Your task to perform on an android device: open app "PlayWell" Image 0: 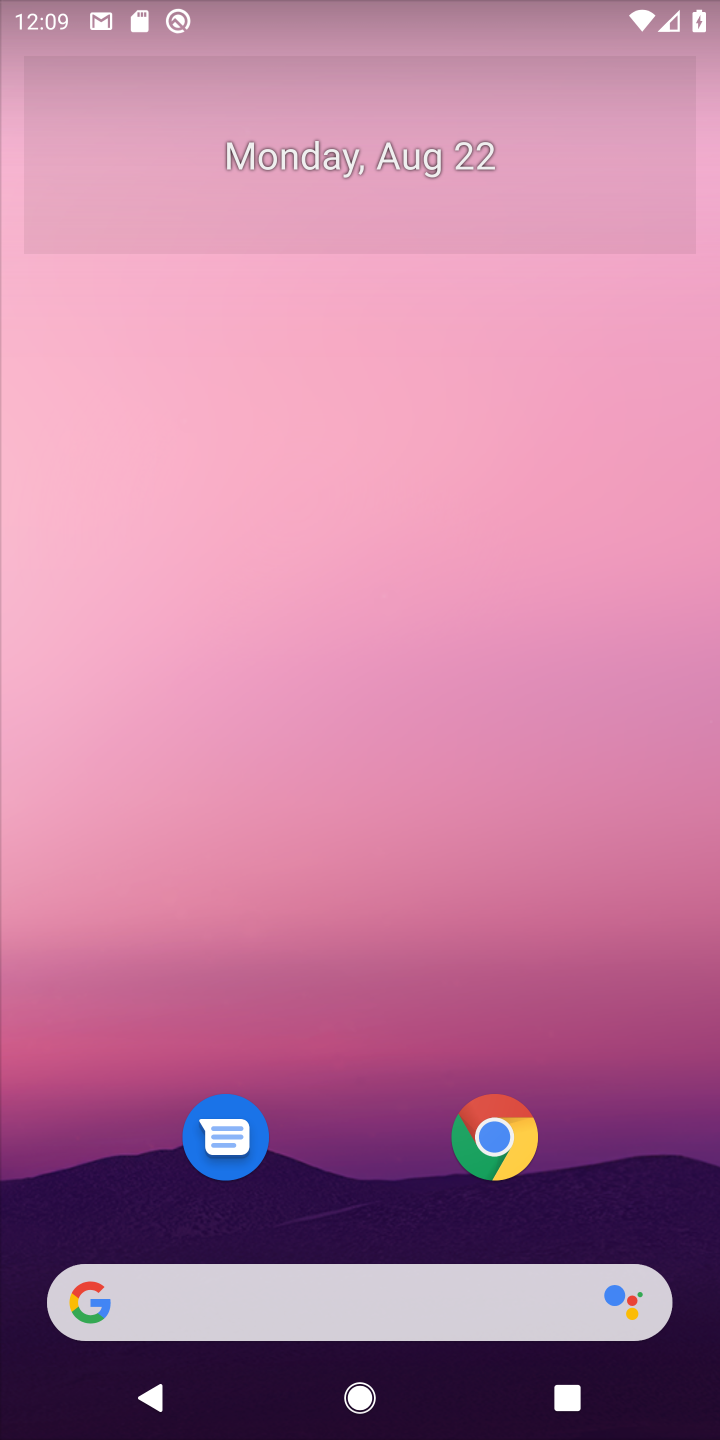
Step 0: drag from (674, 1206) to (620, 227)
Your task to perform on an android device: open app "PlayWell" Image 1: 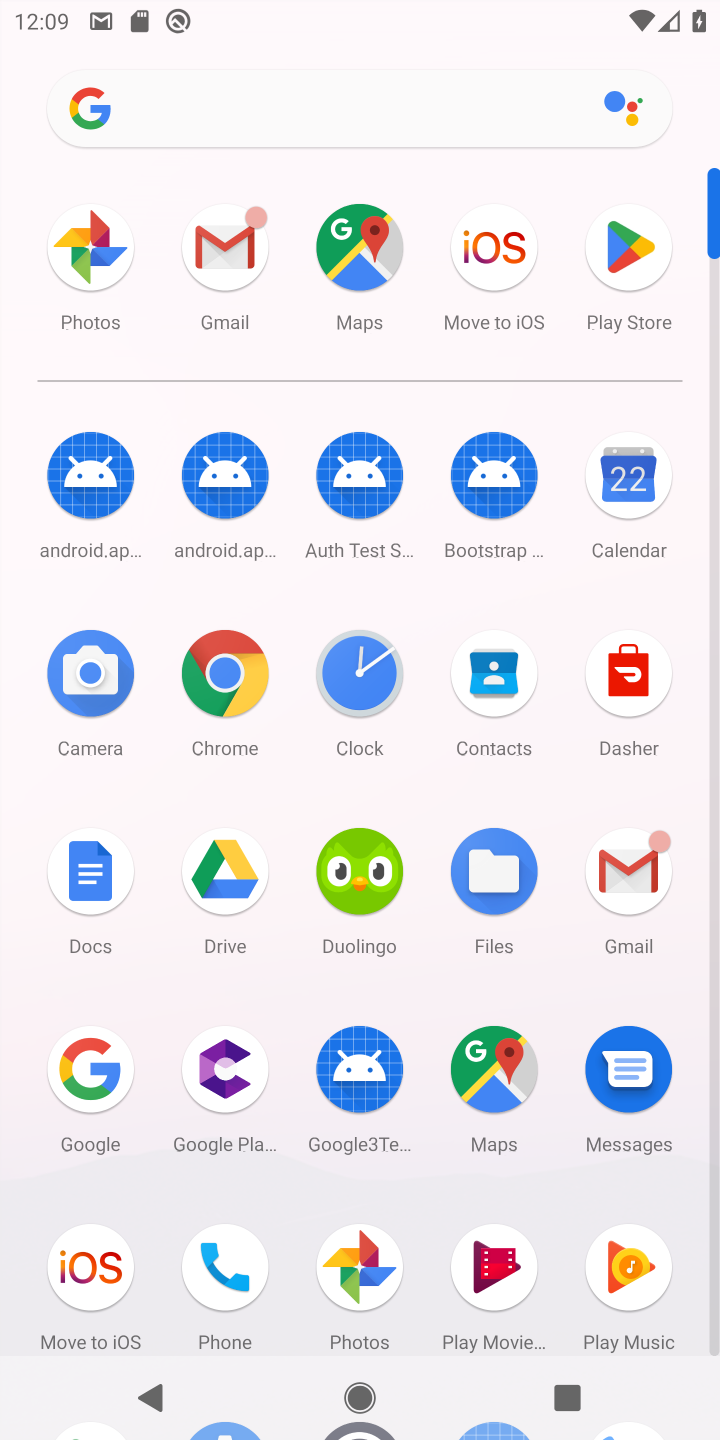
Step 1: drag from (565, 1304) to (544, 537)
Your task to perform on an android device: open app "PlayWell" Image 2: 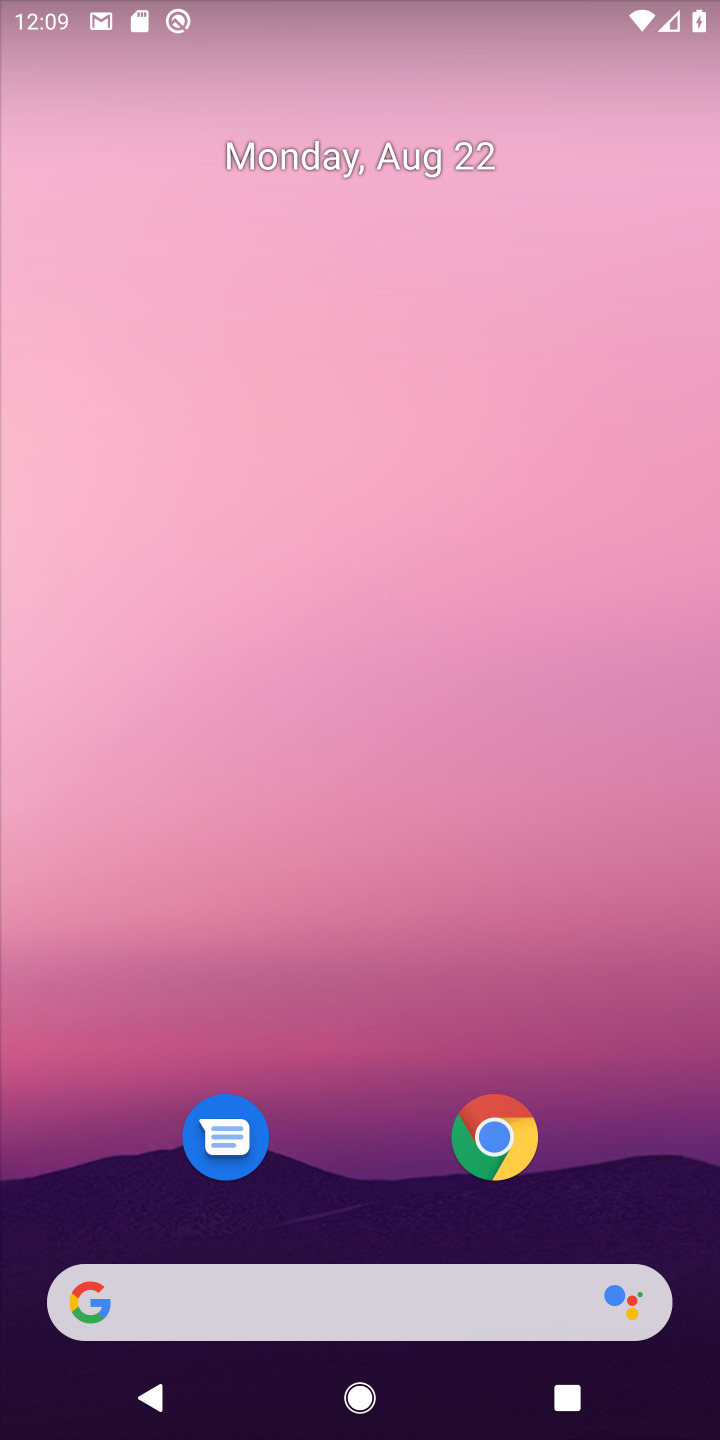
Step 2: drag from (375, 851) to (444, 95)
Your task to perform on an android device: open app "PlayWell" Image 3: 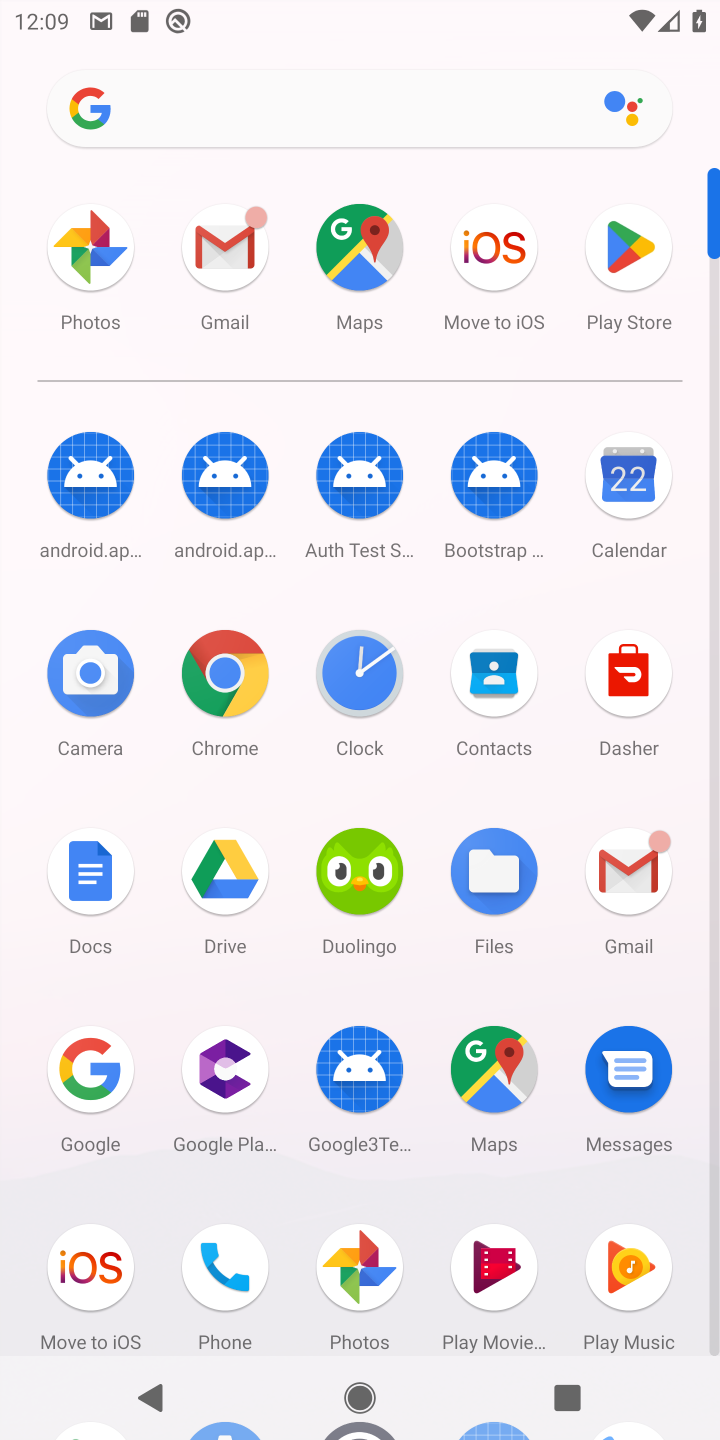
Step 3: drag from (419, 1221) to (439, 425)
Your task to perform on an android device: open app "PlayWell" Image 4: 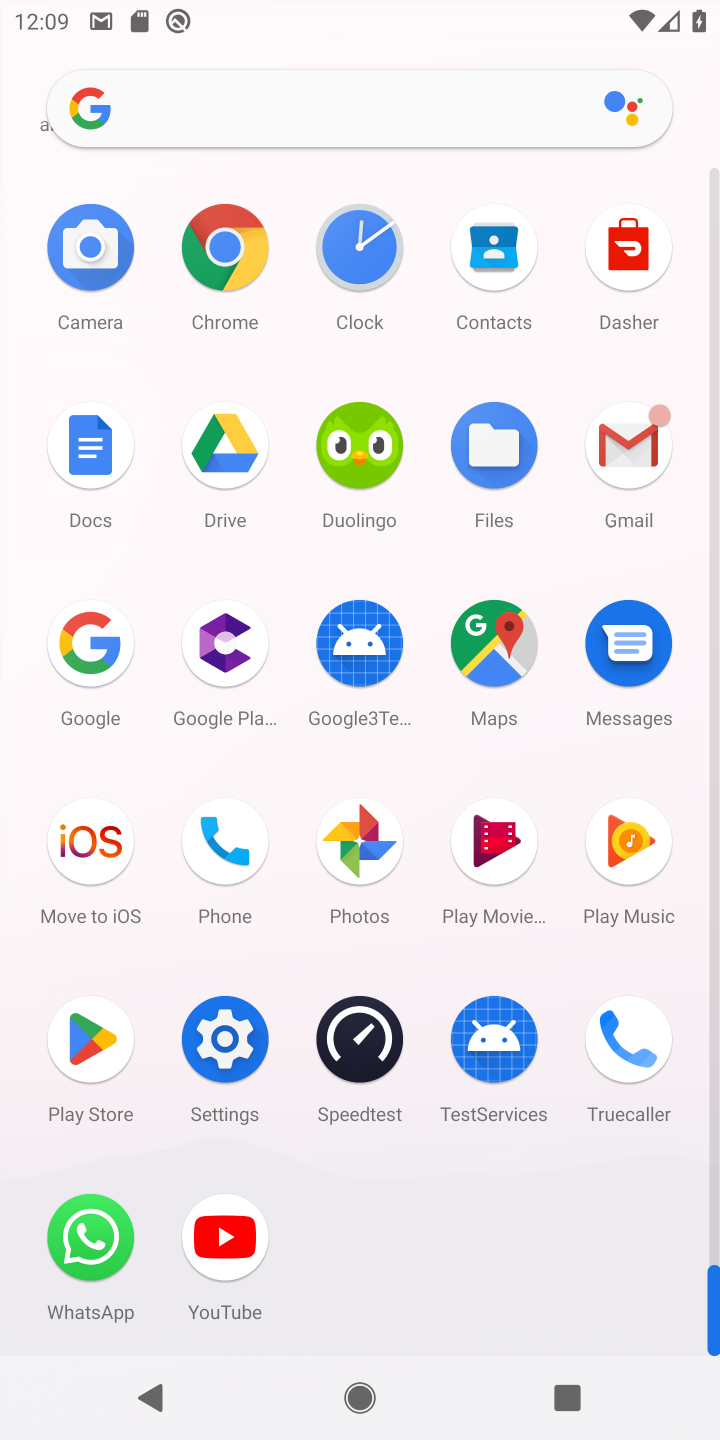
Step 4: click (94, 1035)
Your task to perform on an android device: open app "PlayWell" Image 5: 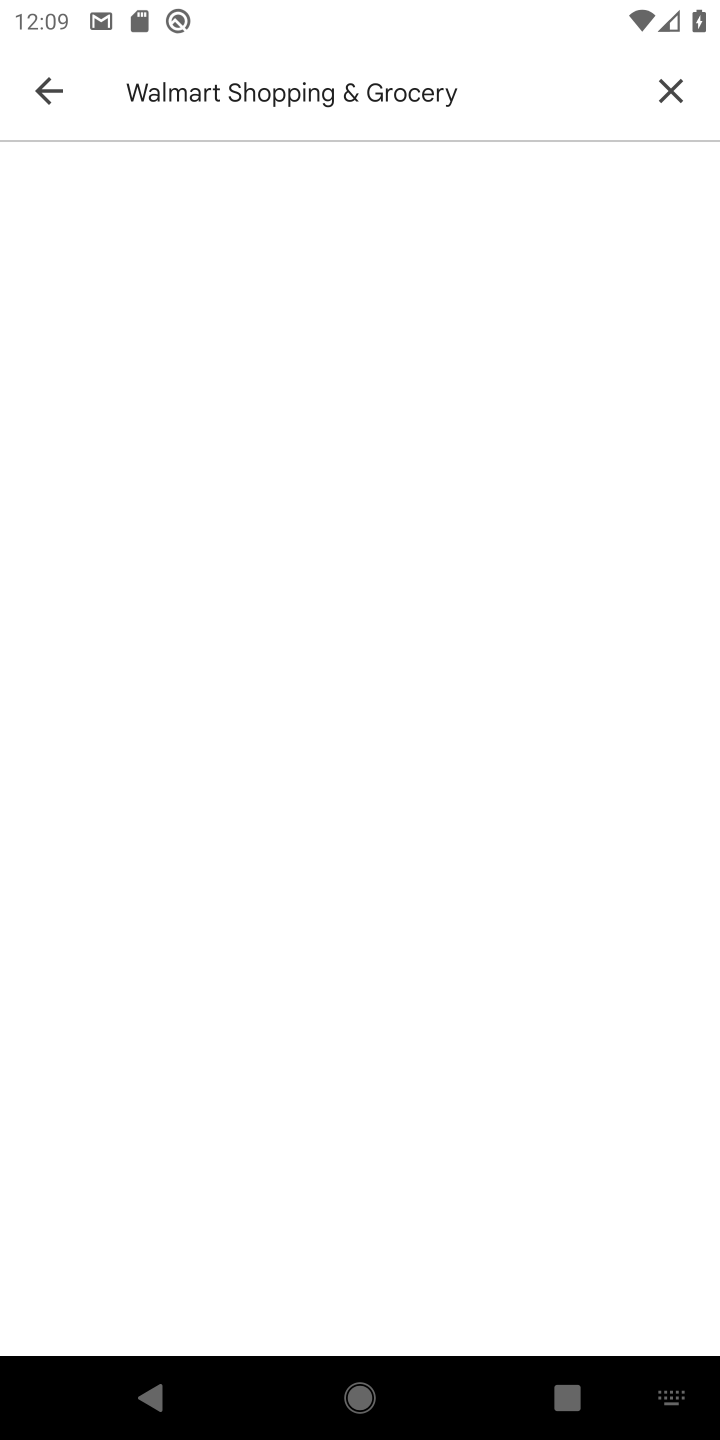
Step 5: click (669, 84)
Your task to perform on an android device: open app "PlayWell" Image 6: 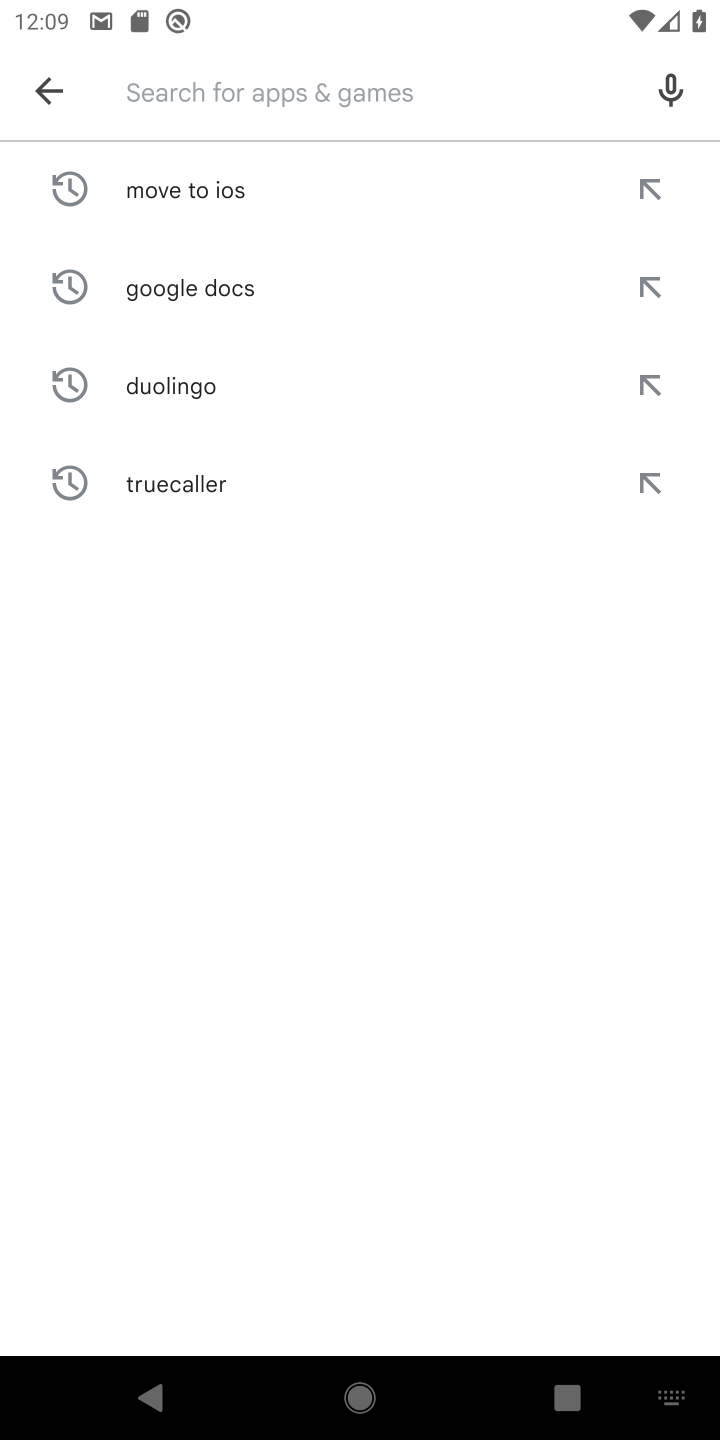
Step 6: type "PlayWell"
Your task to perform on an android device: open app "PlayWell" Image 7: 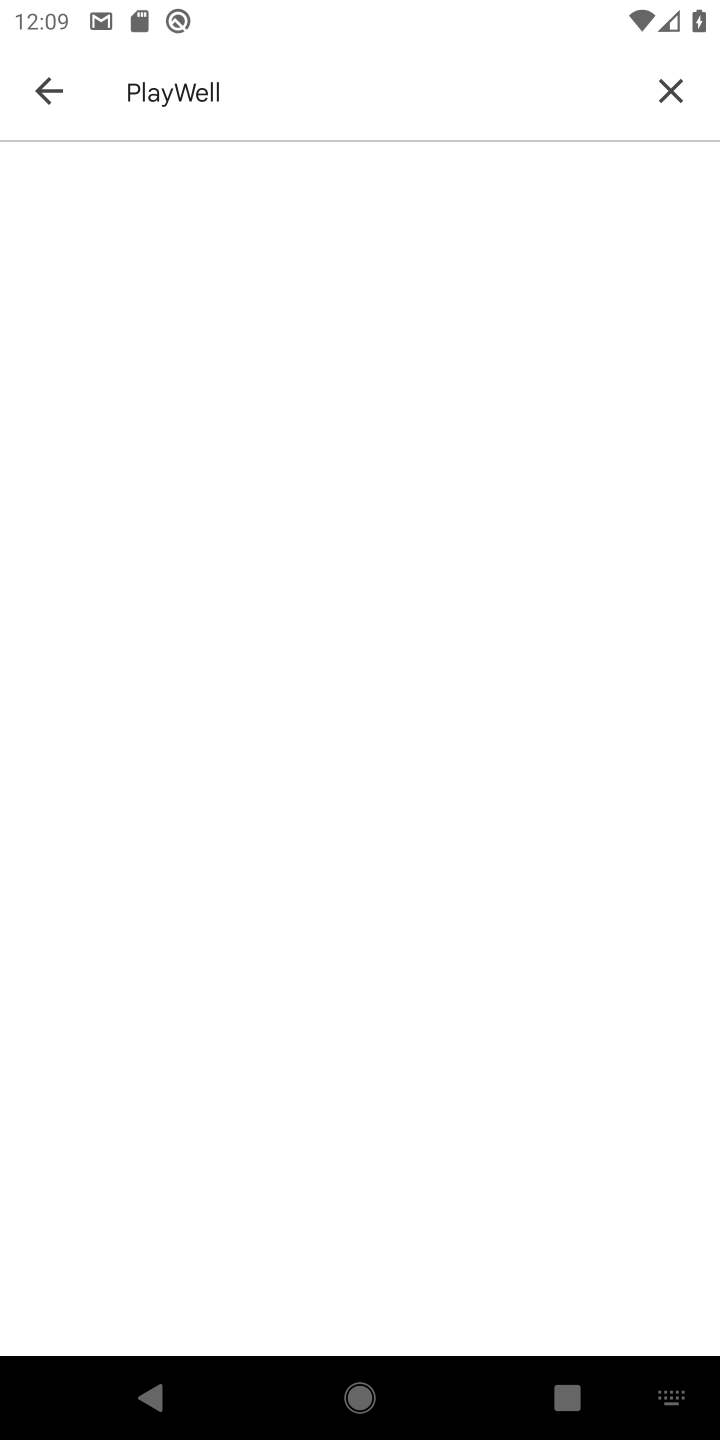
Step 7: task complete